Your task to perform on an android device: Open notification settings Image 0: 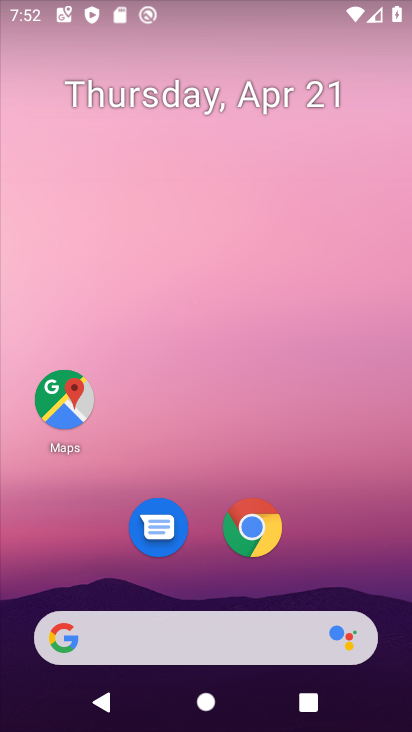
Step 0: drag from (213, 670) to (276, 62)
Your task to perform on an android device: Open notification settings Image 1: 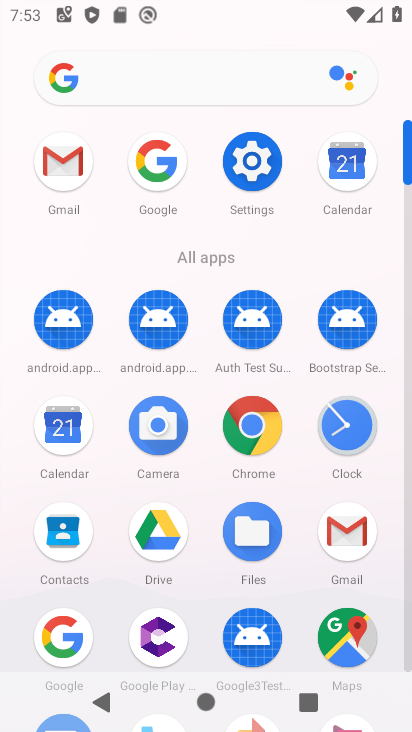
Step 1: click (264, 191)
Your task to perform on an android device: Open notification settings Image 2: 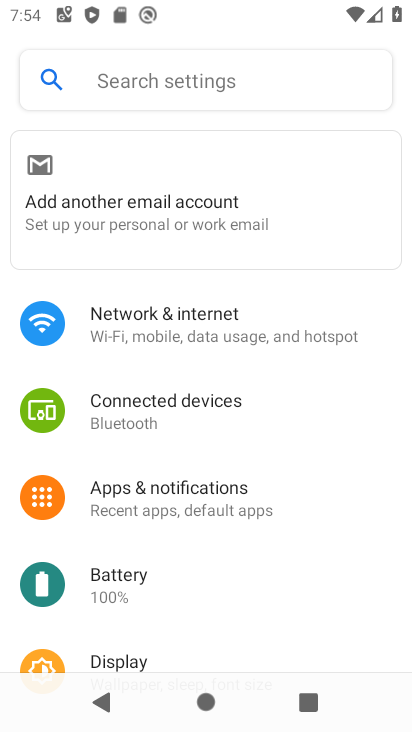
Step 2: click (213, 508)
Your task to perform on an android device: Open notification settings Image 3: 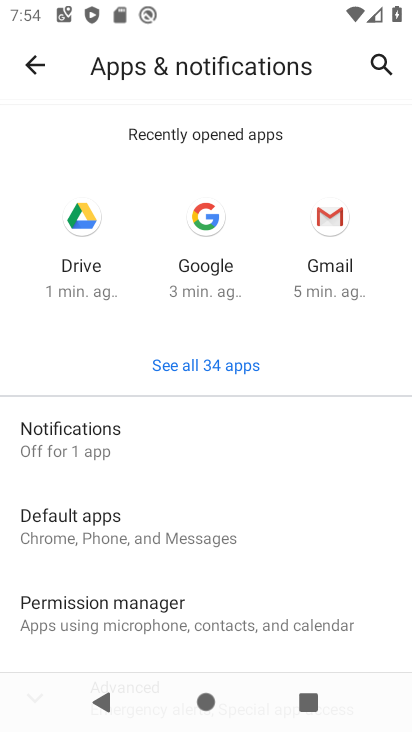
Step 3: click (193, 446)
Your task to perform on an android device: Open notification settings Image 4: 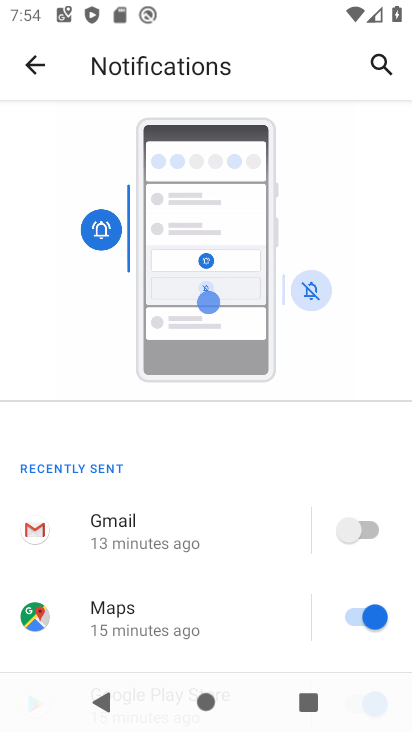
Step 4: task complete